Your task to perform on an android device: Search for vegetarian restaurants on Maps Image 0: 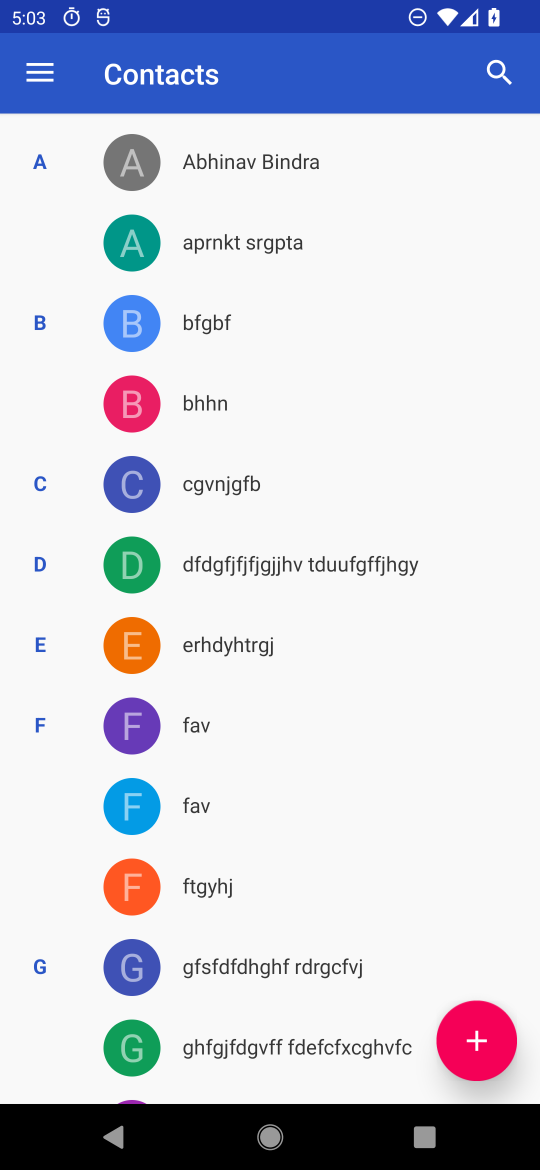
Step 0: press home button
Your task to perform on an android device: Search for vegetarian restaurants on Maps Image 1: 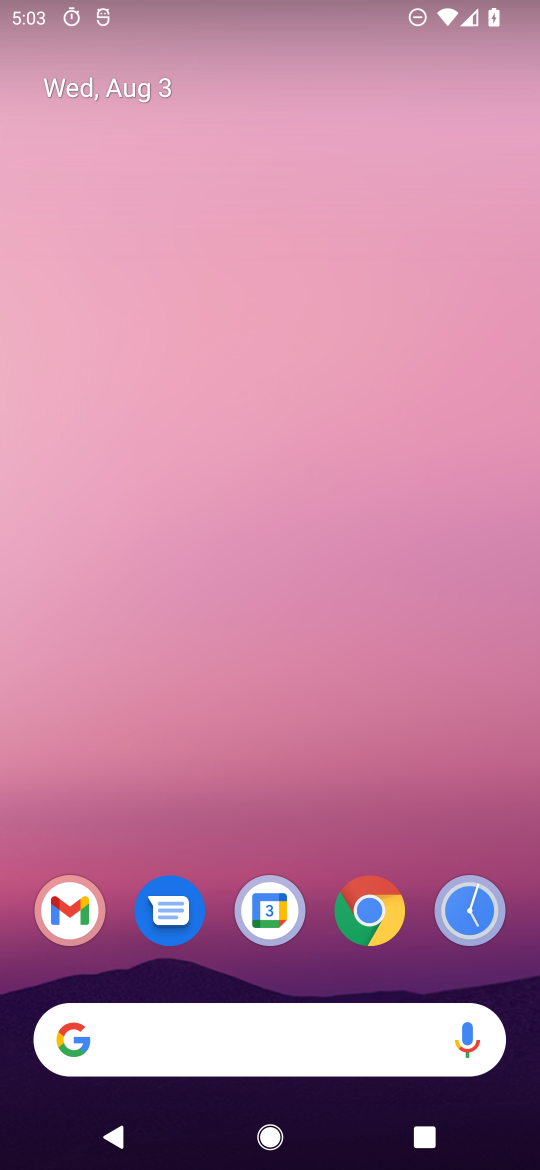
Step 1: drag from (45, 1105) to (283, 96)
Your task to perform on an android device: Search for vegetarian restaurants on Maps Image 2: 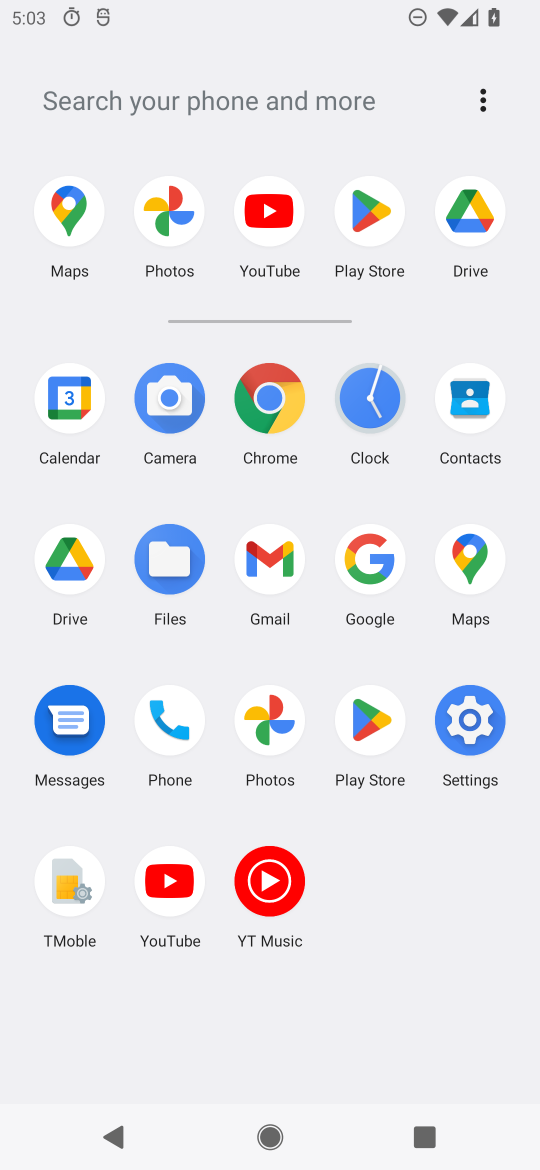
Step 2: click (471, 573)
Your task to perform on an android device: Search for vegetarian restaurants on Maps Image 3: 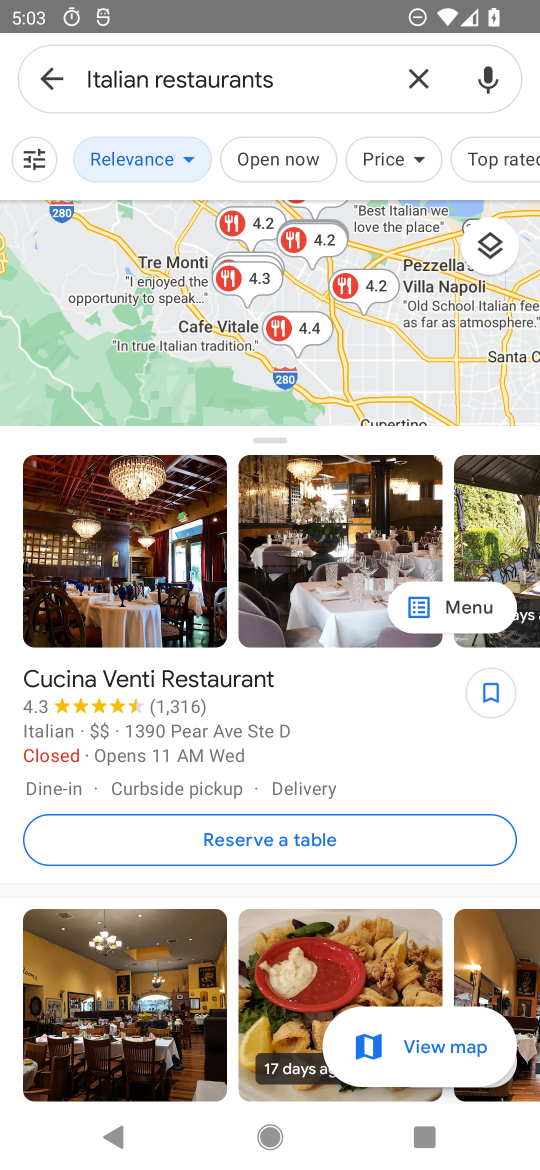
Step 3: click (430, 64)
Your task to perform on an android device: Search for vegetarian restaurants on Maps Image 4: 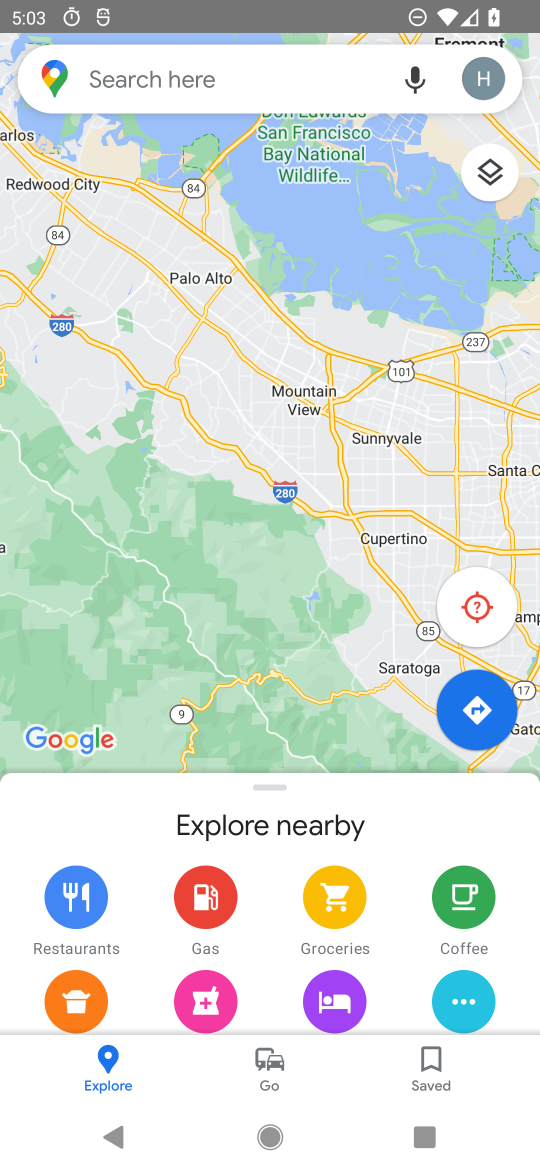
Step 4: click (157, 79)
Your task to perform on an android device: Search for vegetarian restaurants on Maps Image 5: 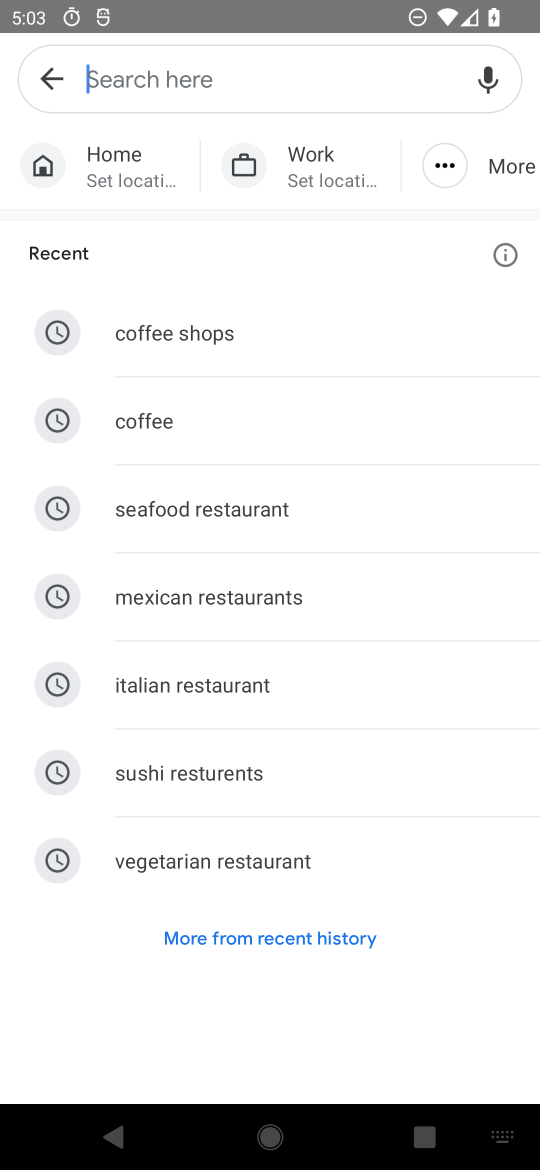
Step 5: type "vegetarian restaurants "
Your task to perform on an android device: Search for vegetarian restaurants on Maps Image 6: 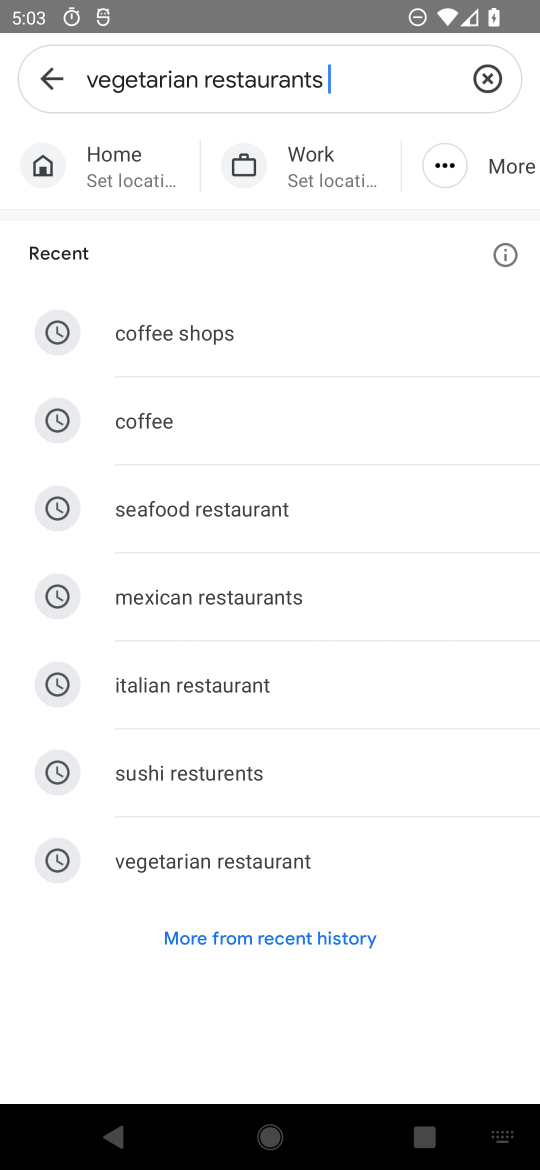
Step 6: type ""
Your task to perform on an android device: Search for vegetarian restaurants on Maps Image 7: 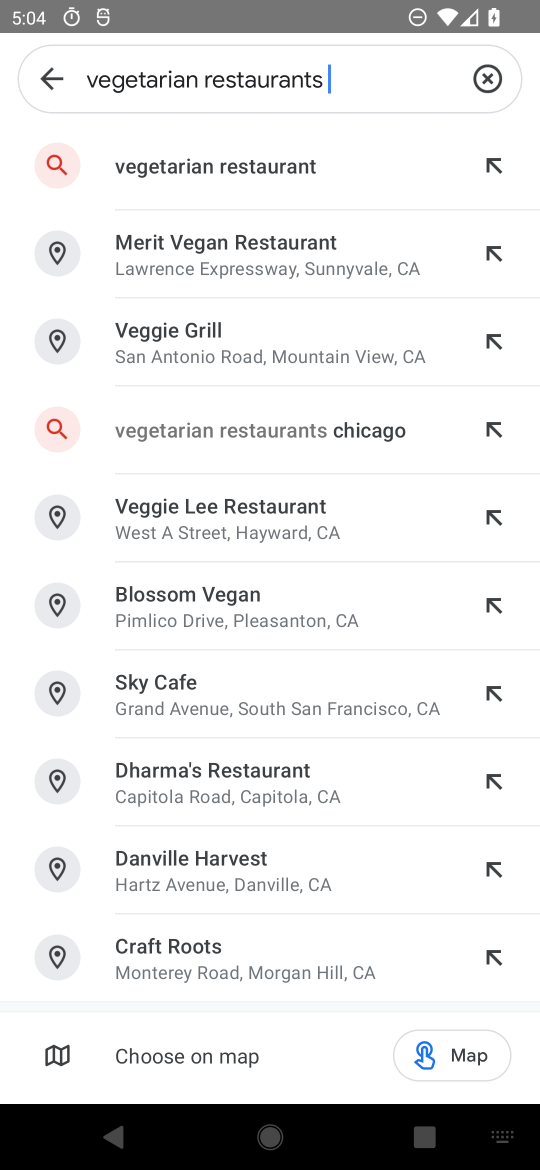
Step 7: click (206, 166)
Your task to perform on an android device: Search for vegetarian restaurants on Maps Image 8: 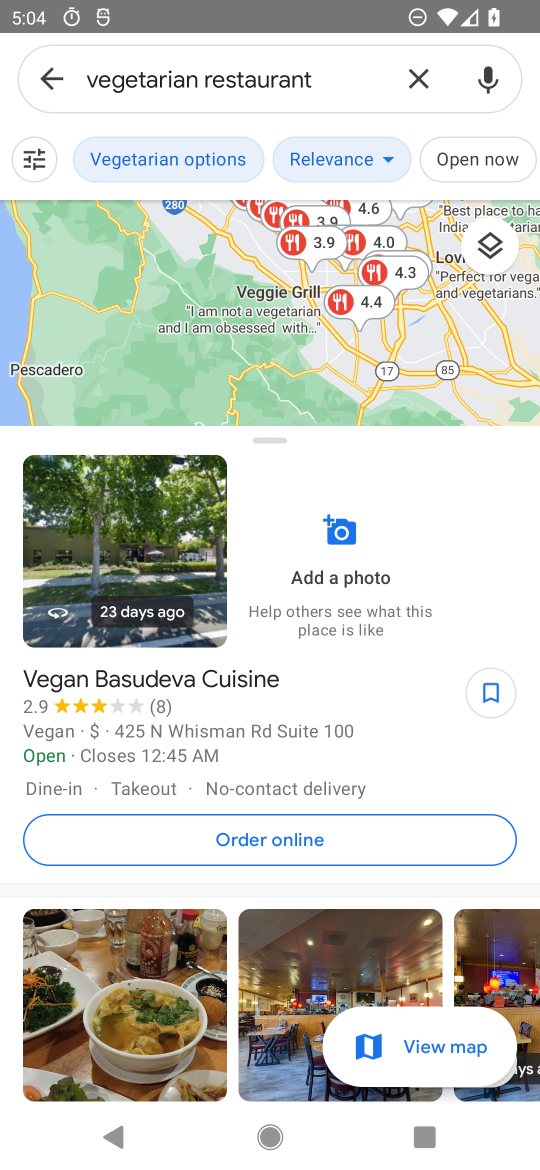
Step 8: task complete